Your task to perform on an android device: Search for Mexican restaurants on Maps Image 0: 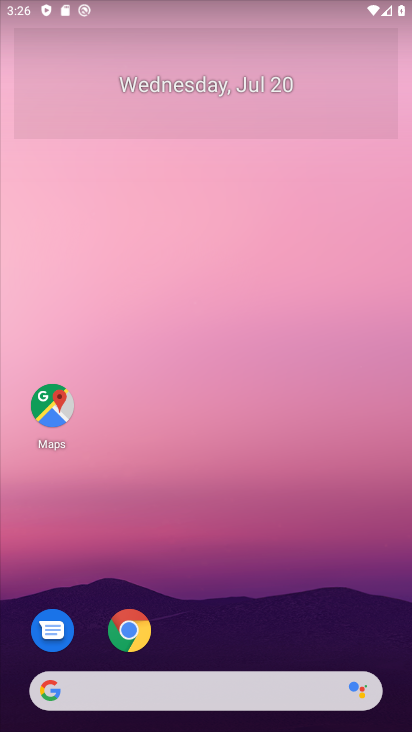
Step 0: drag from (272, 545) to (368, 72)
Your task to perform on an android device: Search for Mexican restaurants on Maps Image 1: 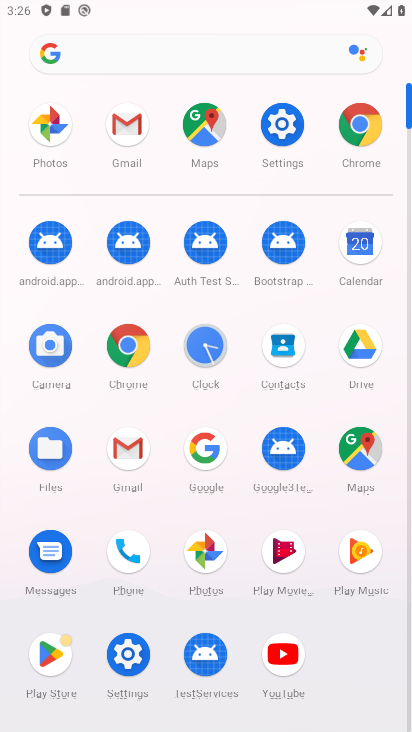
Step 1: click (207, 127)
Your task to perform on an android device: Search for Mexican restaurants on Maps Image 2: 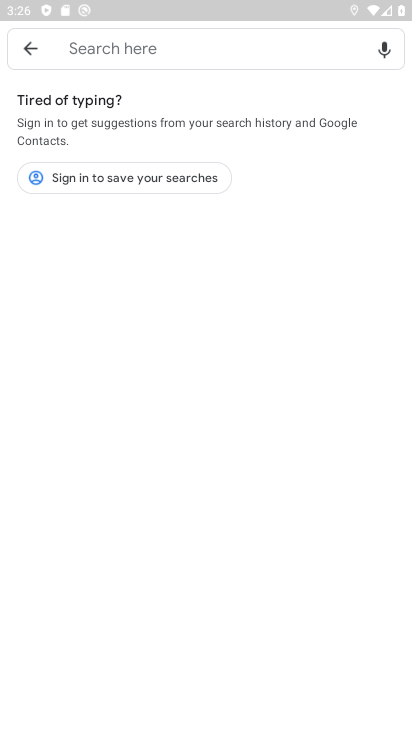
Step 2: click (115, 40)
Your task to perform on an android device: Search for Mexican restaurants on Maps Image 3: 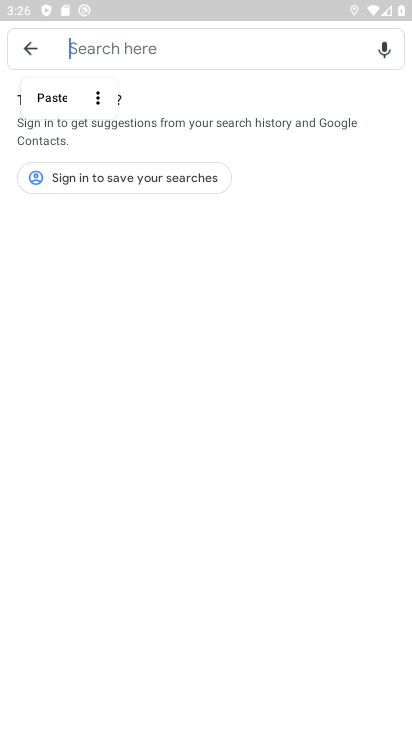
Step 3: task complete